Your task to perform on an android device: turn pop-ups off in chrome Image 0: 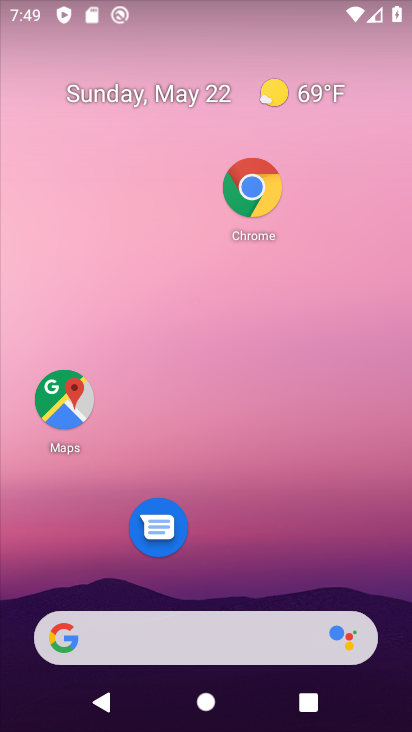
Step 0: press home button
Your task to perform on an android device: turn pop-ups off in chrome Image 1: 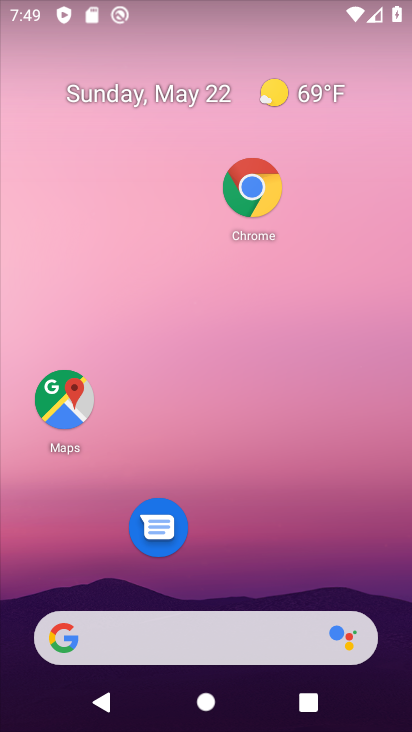
Step 1: click (251, 182)
Your task to perform on an android device: turn pop-ups off in chrome Image 2: 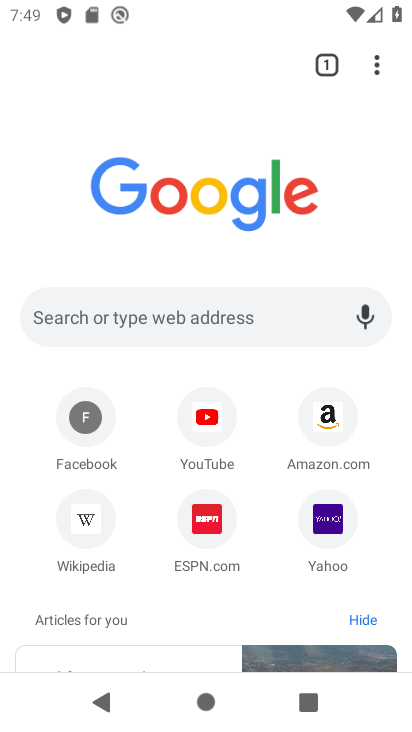
Step 2: click (385, 61)
Your task to perform on an android device: turn pop-ups off in chrome Image 3: 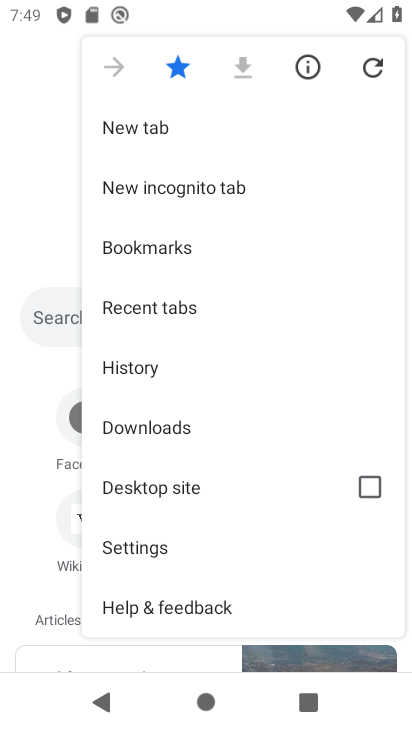
Step 3: click (170, 543)
Your task to perform on an android device: turn pop-ups off in chrome Image 4: 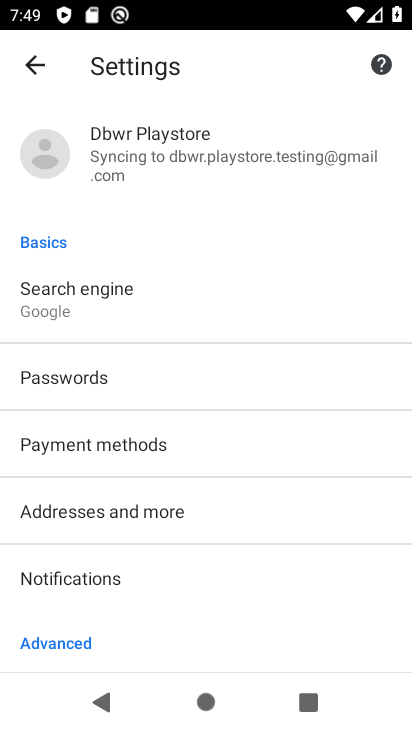
Step 4: drag from (217, 606) to (229, 226)
Your task to perform on an android device: turn pop-ups off in chrome Image 5: 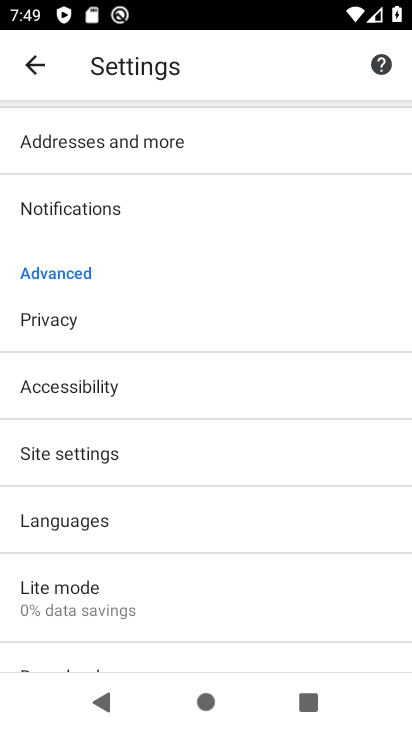
Step 5: click (127, 443)
Your task to perform on an android device: turn pop-ups off in chrome Image 6: 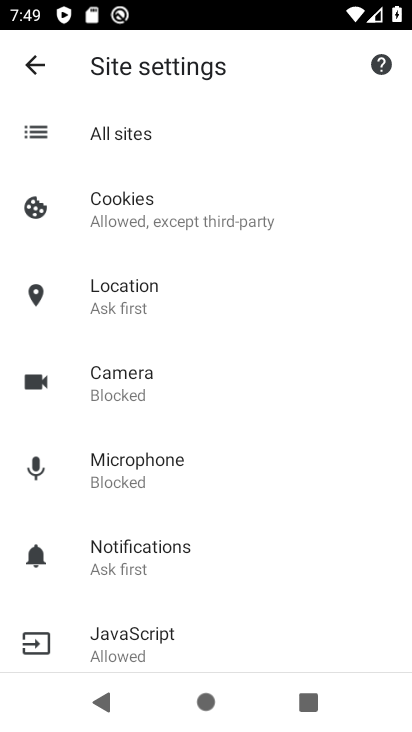
Step 6: drag from (190, 630) to (218, 270)
Your task to perform on an android device: turn pop-ups off in chrome Image 7: 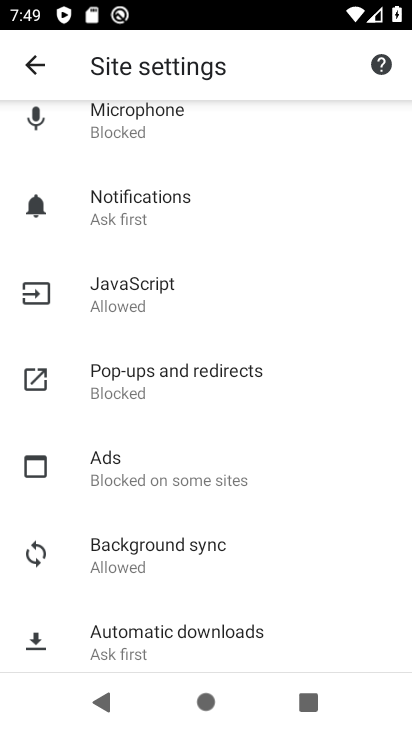
Step 7: click (183, 380)
Your task to perform on an android device: turn pop-ups off in chrome Image 8: 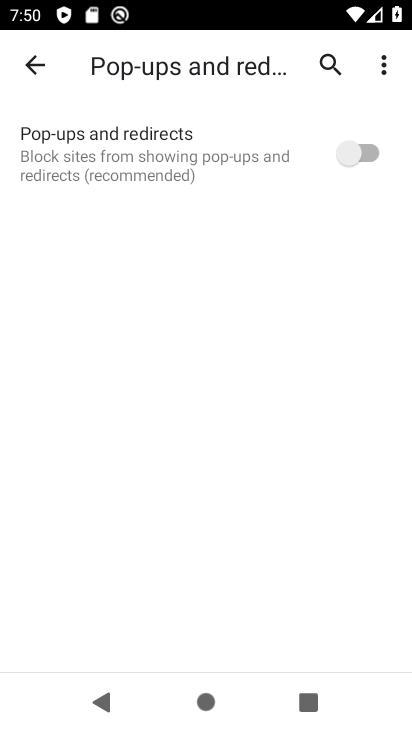
Step 8: task complete